Your task to perform on an android device: Show me productivity apps on the Play Store Image 0: 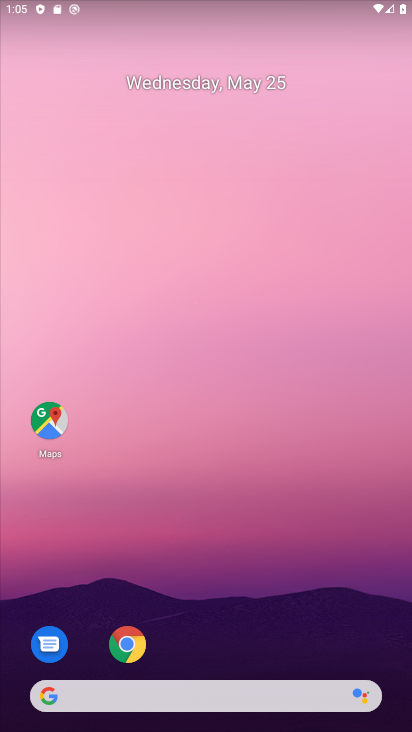
Step 0: drag from (192, 642) to (219, 121)
Your task to perform on an android device: Show me productivity apps on the Play Store Image 1: 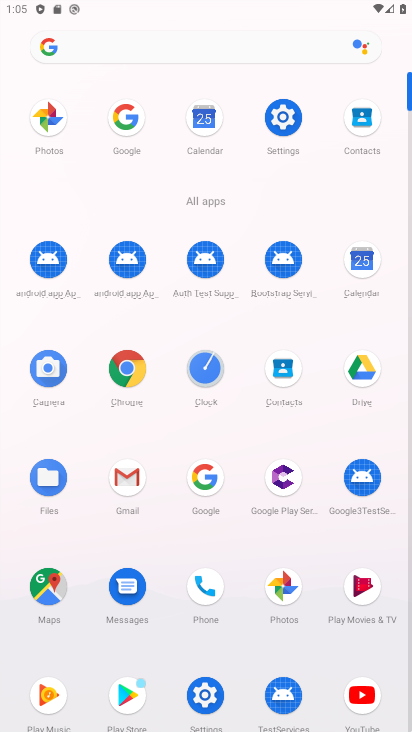
Step 1: click (132, 708)
Your task to perform on an android device: Show me productivity apps on the Play Store Image 2: 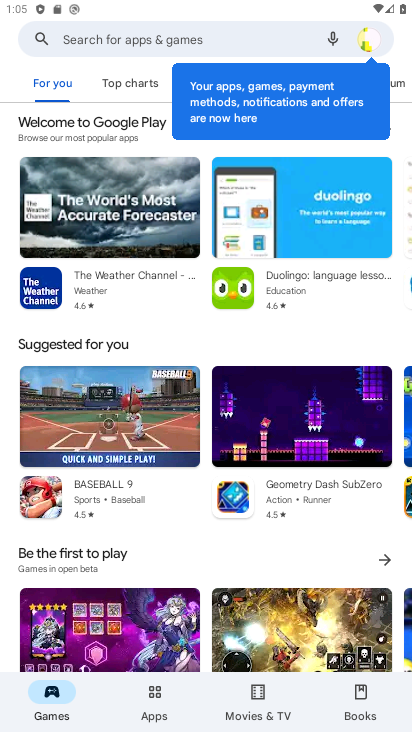
Step 2: click (148, 706)
Your task to perform on an android device: Show me productivity apps on the Play Store Image 3: 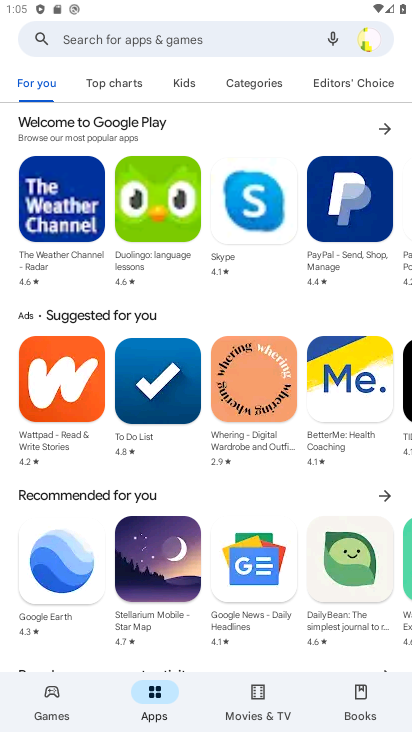
Step 3: drag from (333, 84) to (178, 63)
Your task to perform on an android device: Show me productivity apps on the Play Store Image 4: 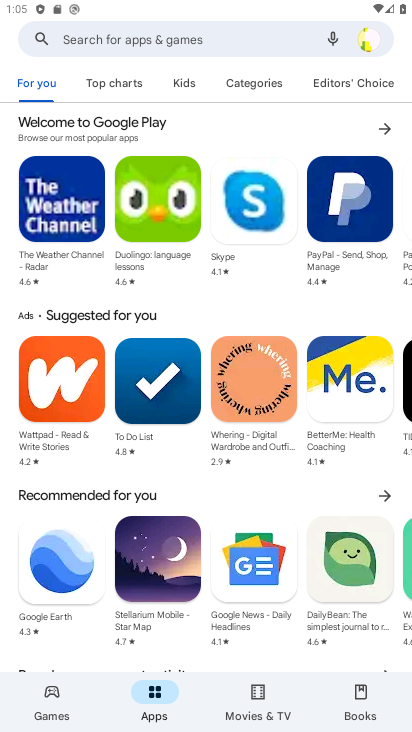
Step 4: click (252, 93)
Your task to perform on an android device: Show me productivity apps on the Play Store Image 5: 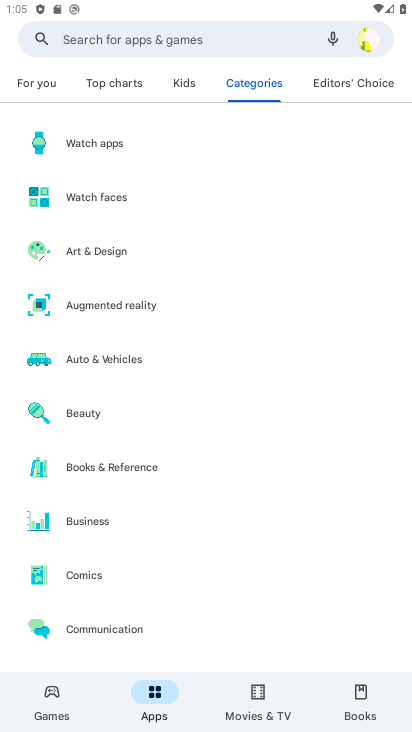
Step 5: drag from (140, 389) to (133, 193)
Your task to perform on an android device: Show me productivity apps on the Play Store Image 6: 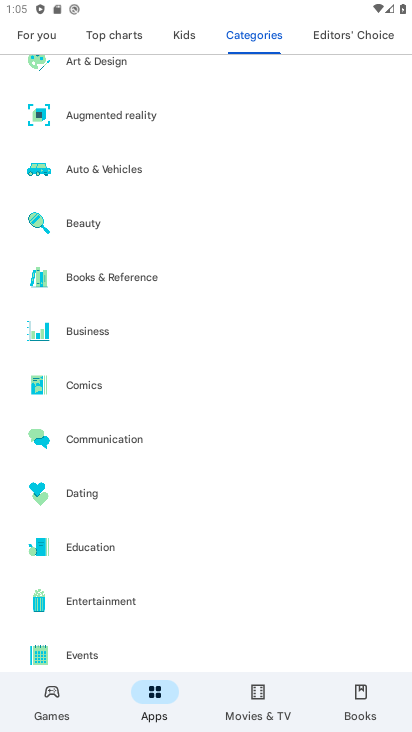
Step 6: drag from (141, 372) to (139, 231)
Your task to perform on an android device: Show me productivity apps on the Play Store Image 7: 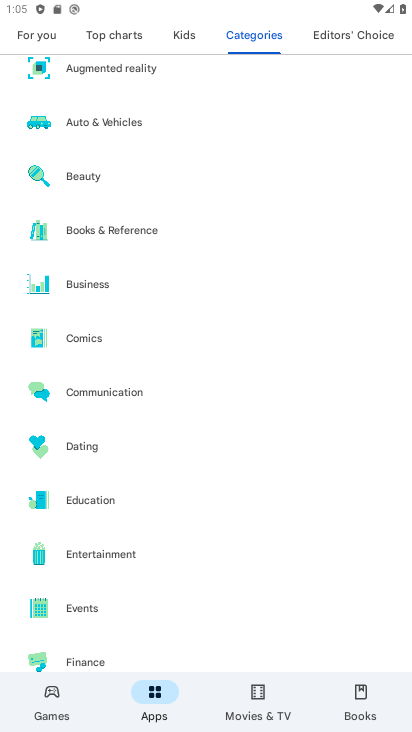
Step 7: drag from (131, 446) to (122, 264)
Your task to perform on an android device: Show me productivity apps on the Play Store Image 8: 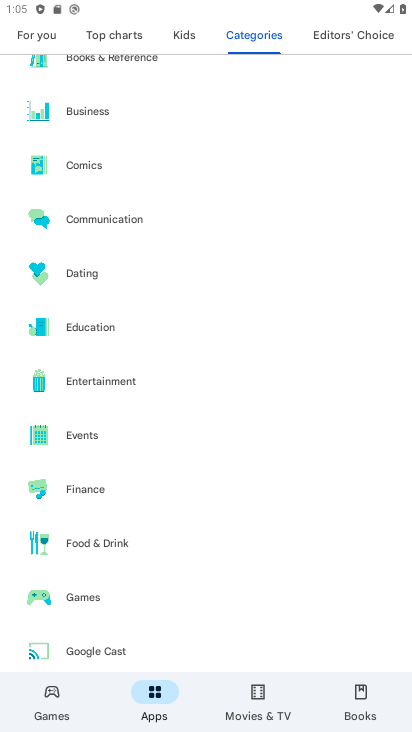
Step 8: drag from (126, 472) to (112, 293)
Your task to perform on an android device: Show me productivity apps on the Play Store Image 9: 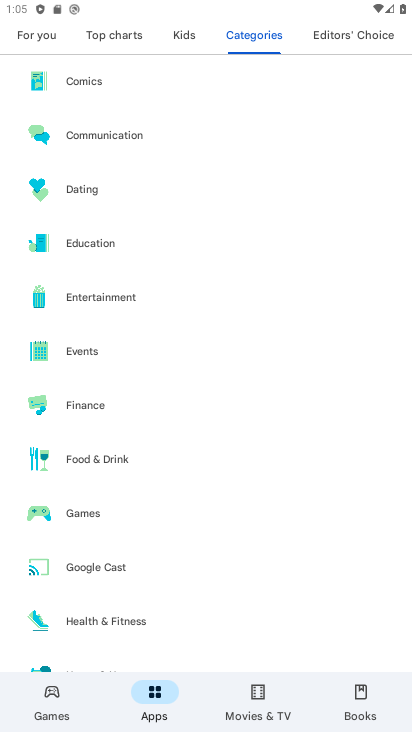
Step 9: drag from (126, 536) to (129, 292)
Your task to perform on an android device: Show me productivity apps on the Play Store Image 10: 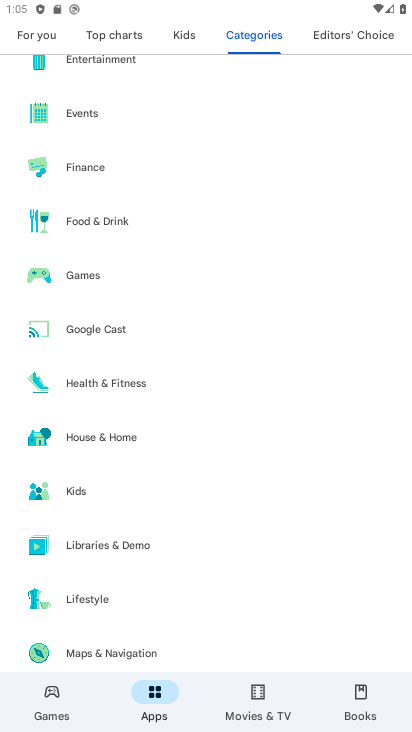
Step 10: drag from (156, 426) to (164, 309)
Your task to perform on an android device: Show me productivity apps on the Play Store Image 11: 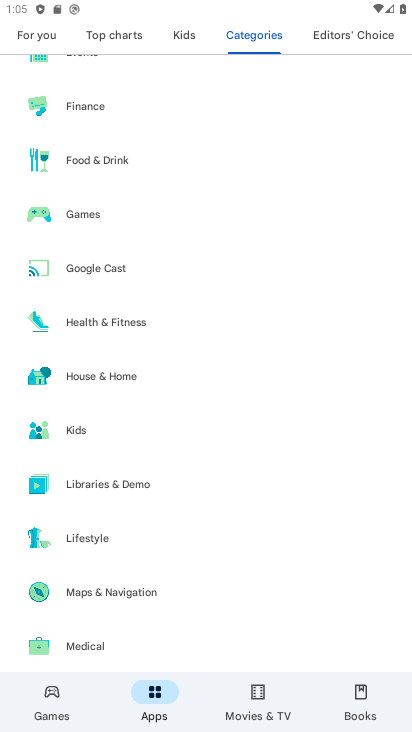
Step 11: drag from (138, 449) to (147, 393)
Your task to perform on an android device: Show me productivity apps on the Play Store Image 12: 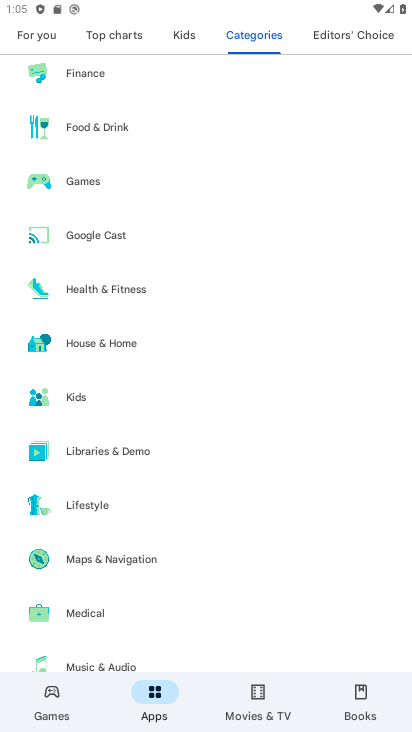
Step 12: drag from (158, 479) to (150, 297)
Your task to perform on an android device: Show me productivity apps on the Play Store Image 13: 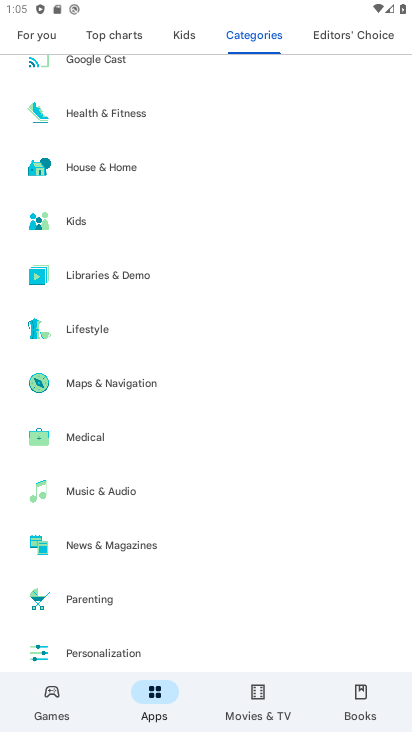
Step 13: drag from (121, 509) to (125, 432)
Your task to perform on an android device: Show me productivity apps on the Play Store Image 14: 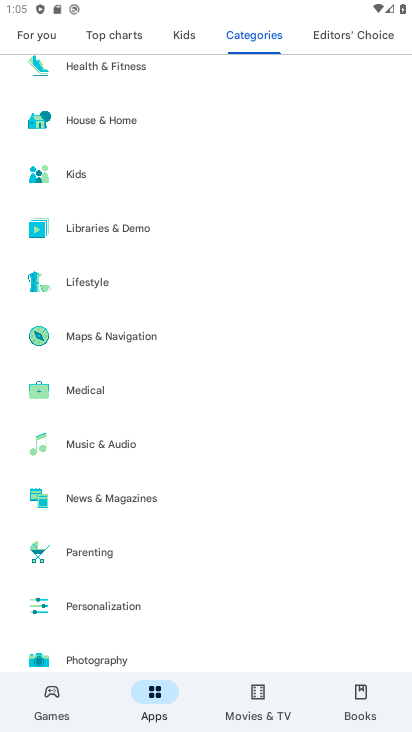
Step 14: drag from (137, 494) to (154, 377)
Your task to perform on an android device: Show me productivity apps on the Play Store Image 15: 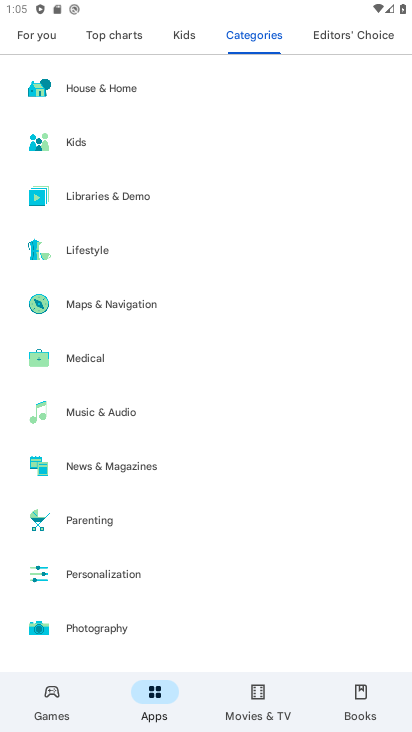
Step 15: drag from (160, 500) to (187, 364)
Your task to perform on an android device: Show me productivity apps on the Play Store Image 16: 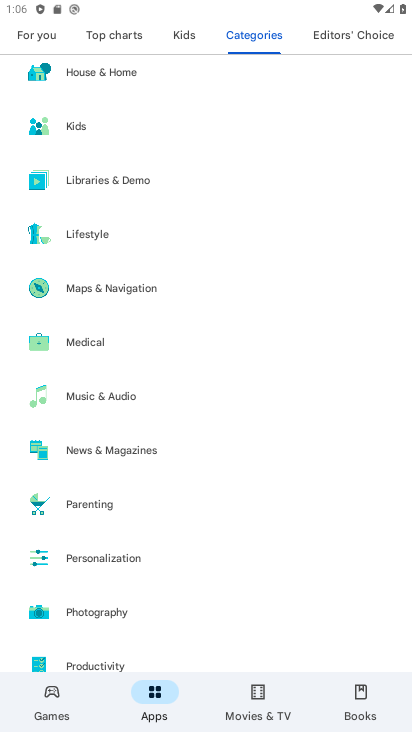
Step 16: click (79, 661)
Your task to perform on an android device: Show me productivity apps on the Play Store Image 17: 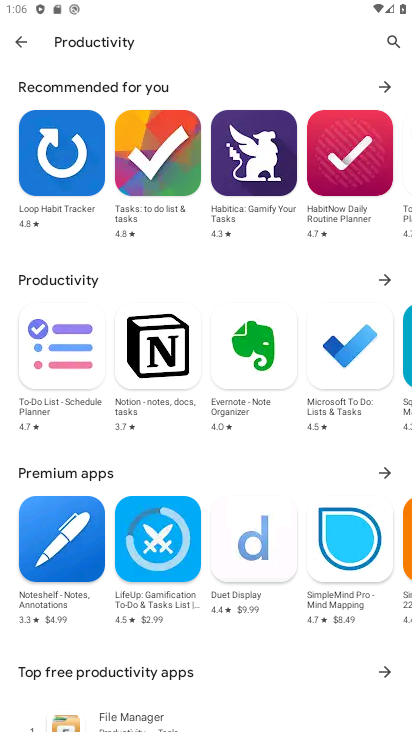
Step 17: task complete